Your task to perform on an android device: turn vacation reply on in the gmail app Image 0: 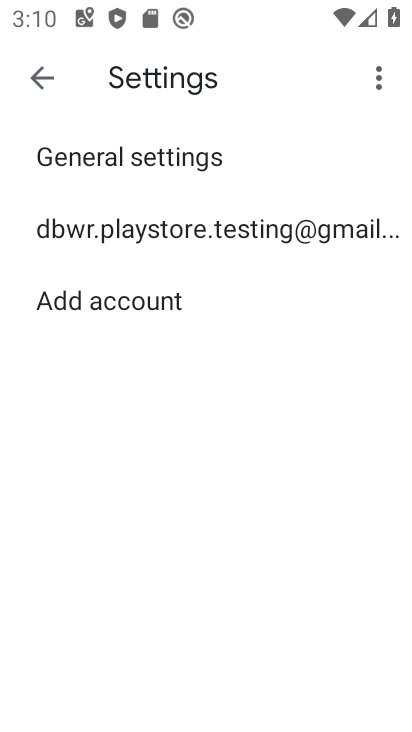
Step 0: press home button
Your task to perform on an android device: turn vacation reply on in the gmail app Image 1: 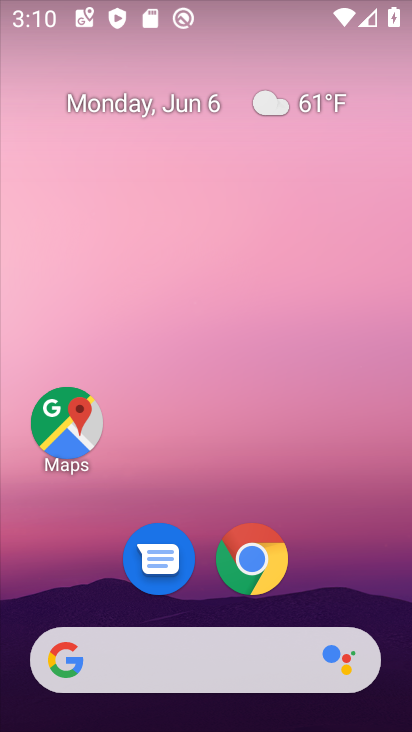
Step 1: drag from (176, 621) to (103, 14)
Your task to perform on an android device: turn vacation reply on in the gmail app Image 2: 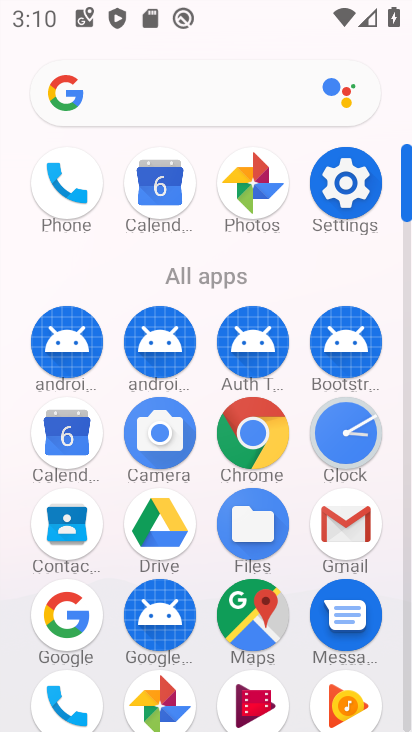
Step 2: click (350, 524)
Your task to perform on an android device: turn vacation reply on in the gmail app Image 3: 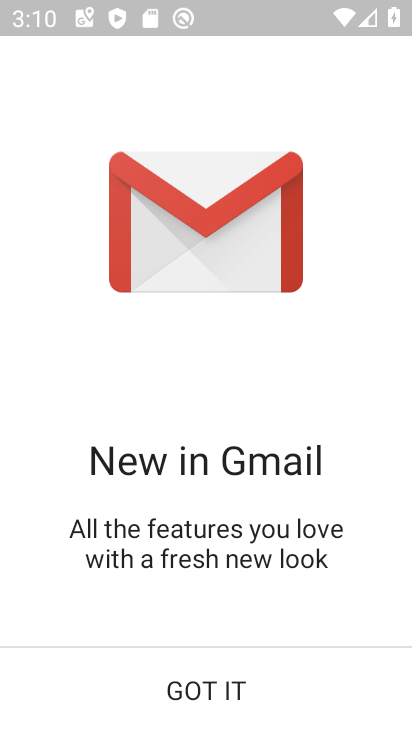
Step 3: click (204, 722)
Your task to perform on an android device: turn vacation reply on in the gmail app Image 4: 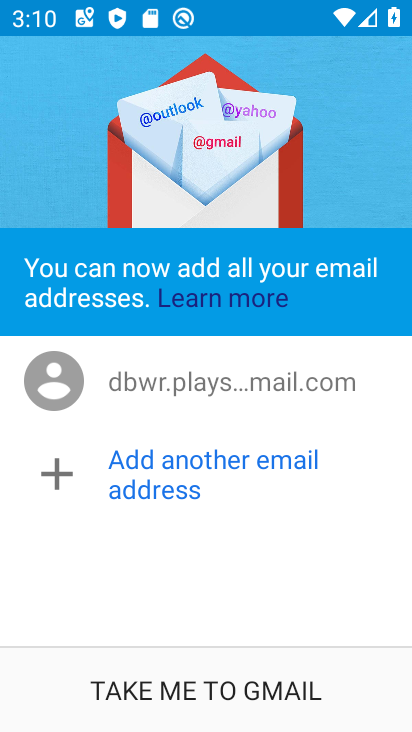
Step 4: click (213, 679)
Your task to perform on an android device: turn vacation reply on in the gmail app Image 5: 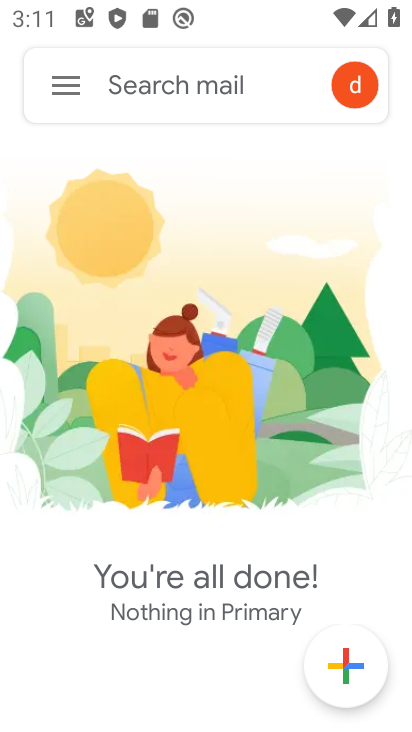
Step 5: click (66, 82)
Your task to perform on an android device: turn vacation reply on in the gmail app Image 6: 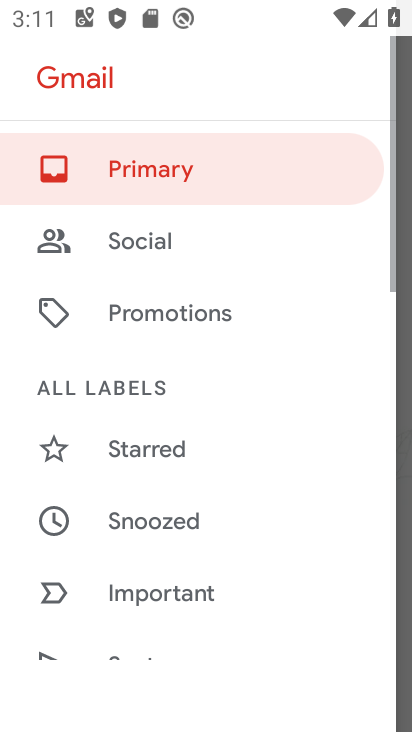
Step 6: drag from (129, 461) to (73, 9)
Your task to perform on an android device: turn vacation reply on in the gmail app Image 7: 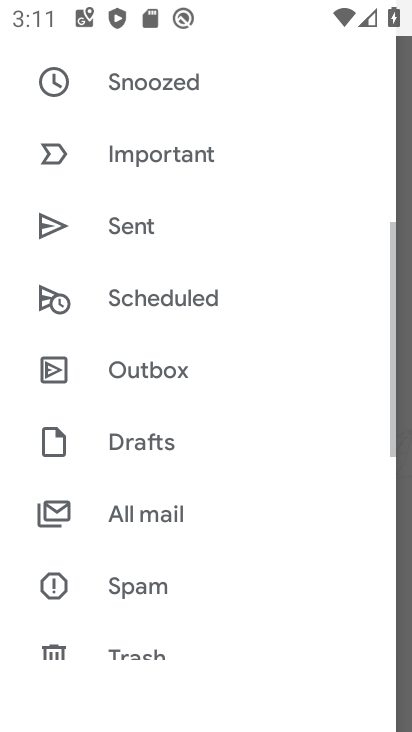
Step 7: drag from (153, 593) to (121, 85)
Your task to perform on an android device: turn vacation reply on in the gmail app Image 8: 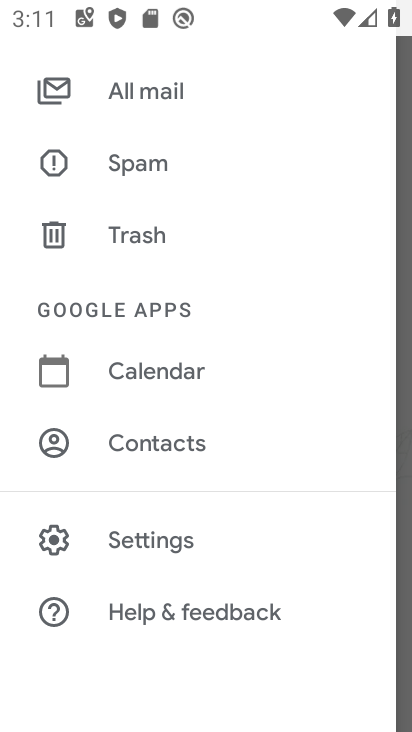
Step 8: click (156, 547)
Your task to perform on an android device: turn vacation reply on in the gmail app Image 9: 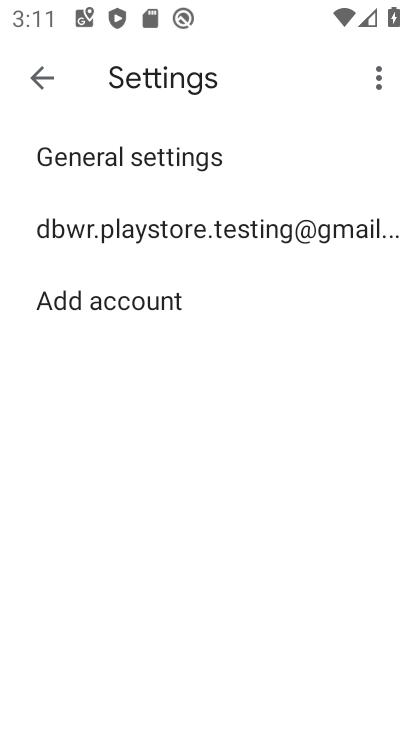
Step 9: click (133, 250)
Your task to perform on an android device: turn vacation reply on in the gmail app Image 10: 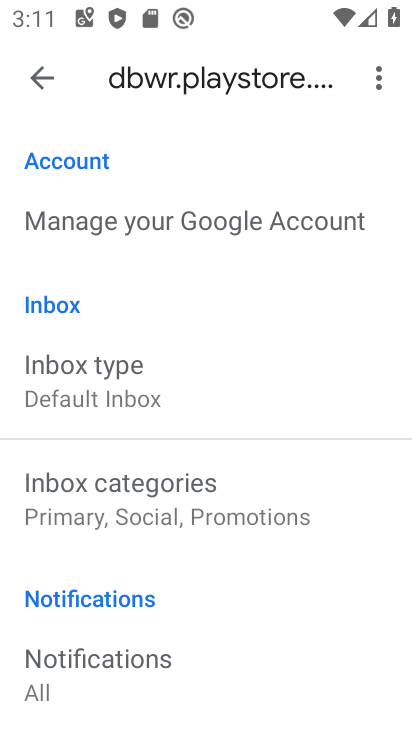
Step 10: drag from (142, 539) to (137, 239)
Your task to perform on an android device: turn vacation reply on in the gmail app Image 11: 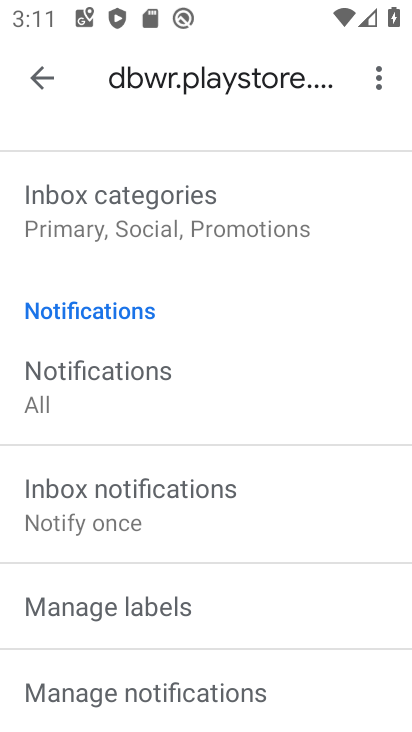
Step 11: drag from (219, 645) to (198, 216)
Your task to perform on an android device: turn vacation reply on in the gmail app Image 12: 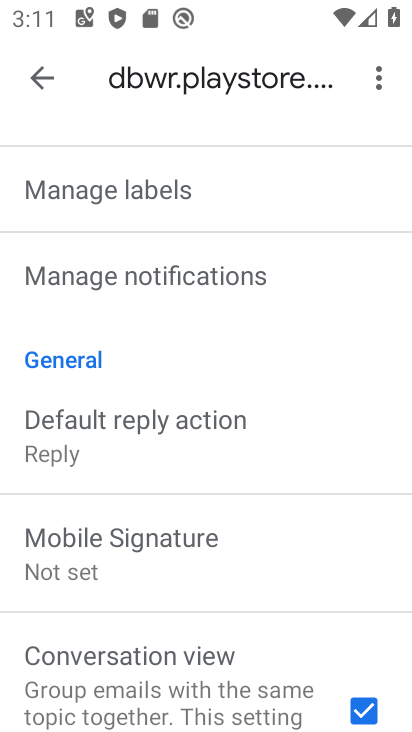
Step 12: drag from (234, 594) to (253, 160)
Your task to perform on an android device: turn vacation reply on in the gmail app Image 13: 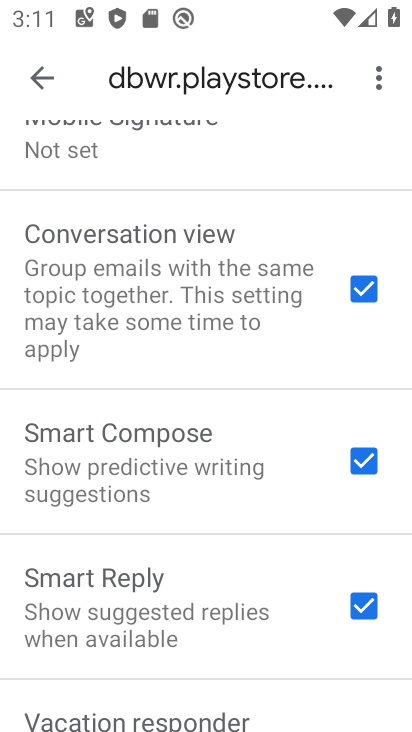
Step 13: drag from (226, 580) to (221, 277)
Your task to perform on an android device: turn vacation reply on in the gmail app Image 14: 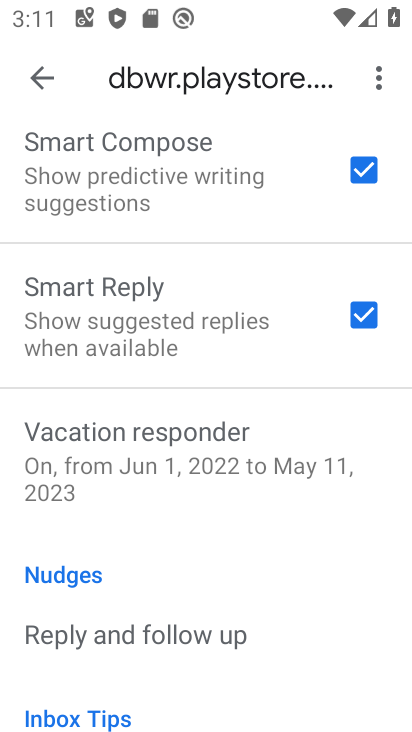
Step 14: click (218, 446)
Your task to perform on an android device: turn vacation reply on in the gmail app Image 15: 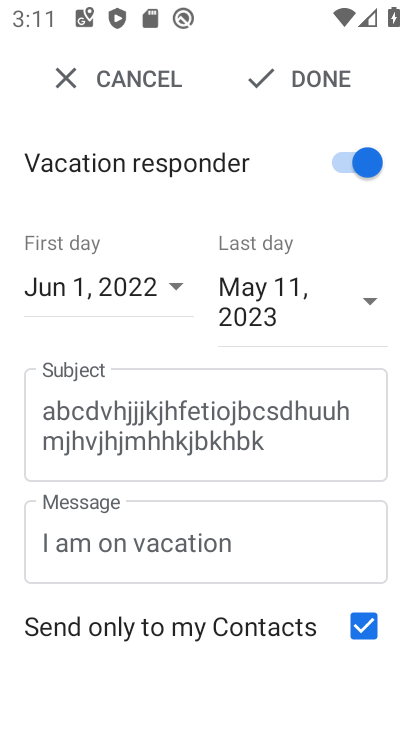
Step 15: click (292, 78)
Your task to perform on an android device: turn vacation reply on in the gmail app Image 16: 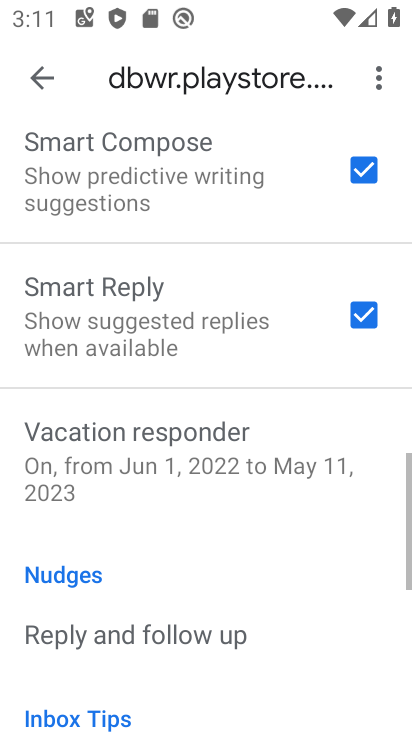
Step 16: task complete